Your task to perform on an android device: Open accessibility settings Image 0: 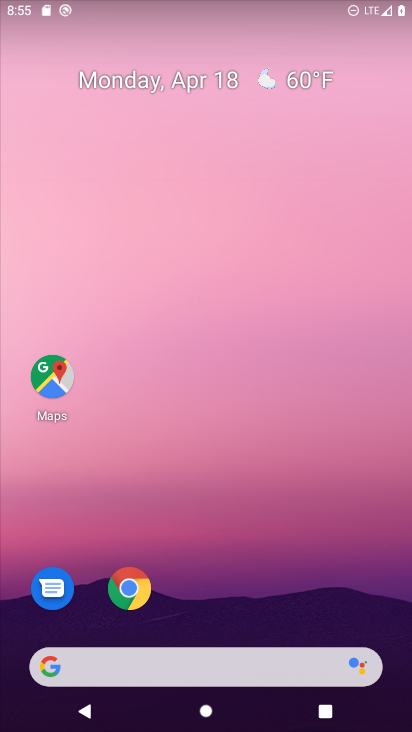
Step 0: drag from (388, 632) to (325, 108)
Your task to perform on an android device: Open accessibility settings Image 1: 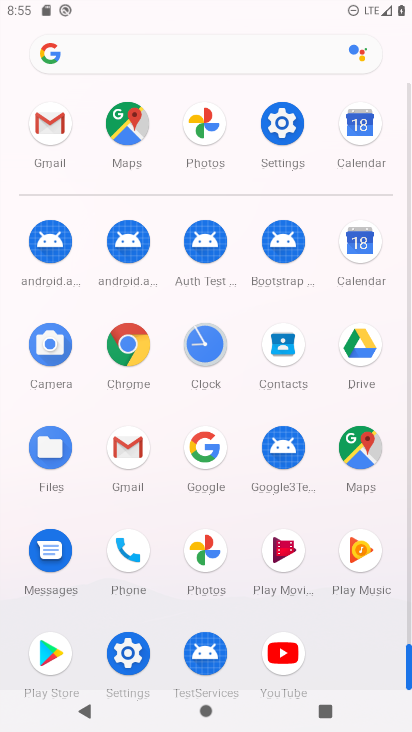
Step 1: click (126, 651)
Your task to perform on an android device: Open accessibility settings Image 2: 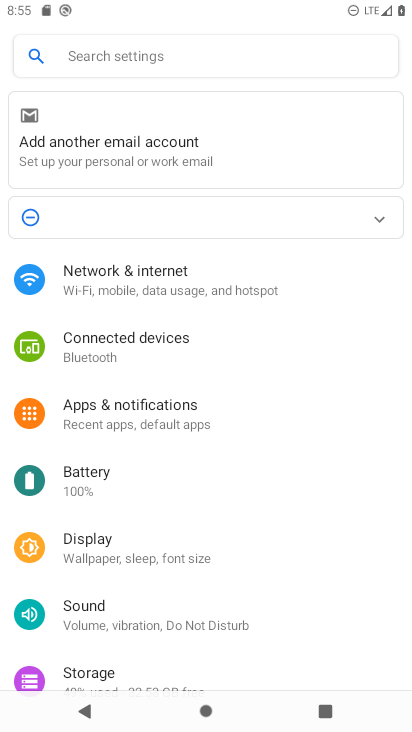
Step 2: drag from (298, 631) to (302, 389)
Your task to perform on an android device: Open accessibility settings Image 3: 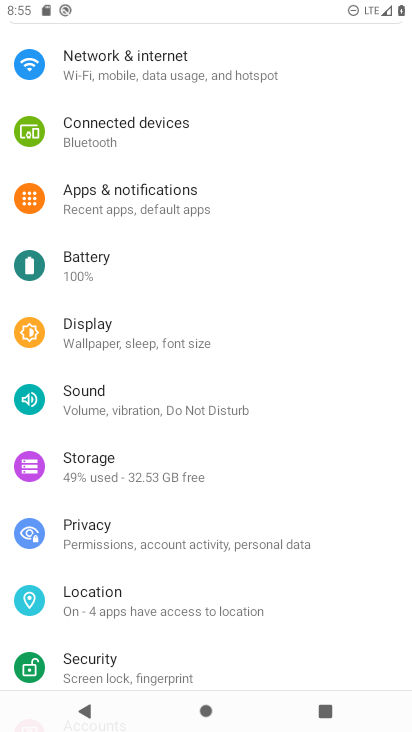
Step 3: drag from (324, 611) to (306, 317)
Your task to perform on an android device: Open accessibility settings Image 4: 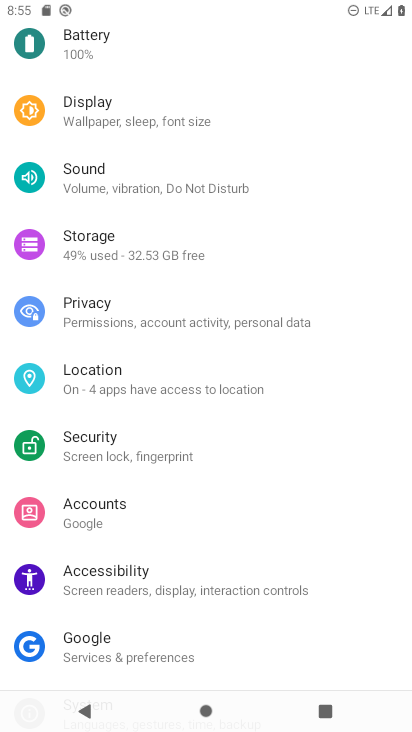
Step 4: click (80, 576)
Your task to perform on an android device: Open accessibility settings Image 5: 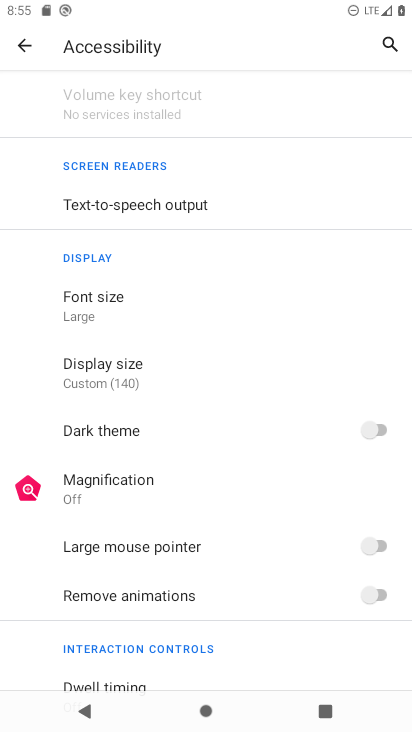
Step 5: task complete